Your task to perform on an android device: check android version Image 0: 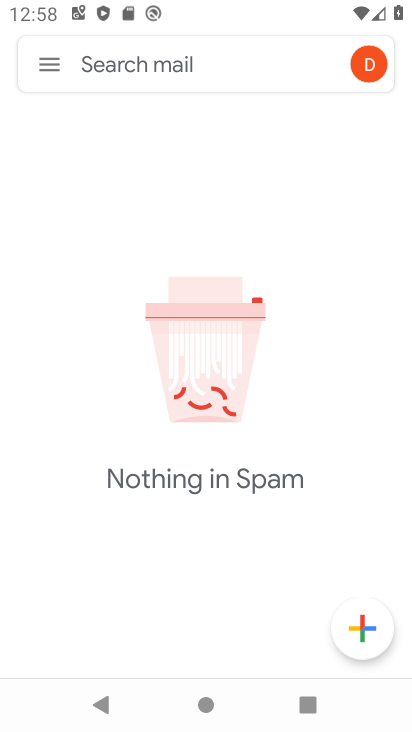
Step 0: press home button
Your task to perform on an android device: check android version Image 1: 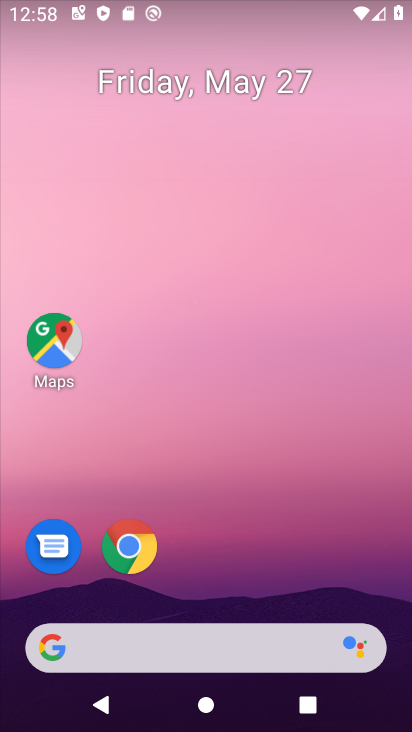
Step 1: drag from (317, 623) to (393, 39)
Your task to perform on an android device: check android version Image 2: 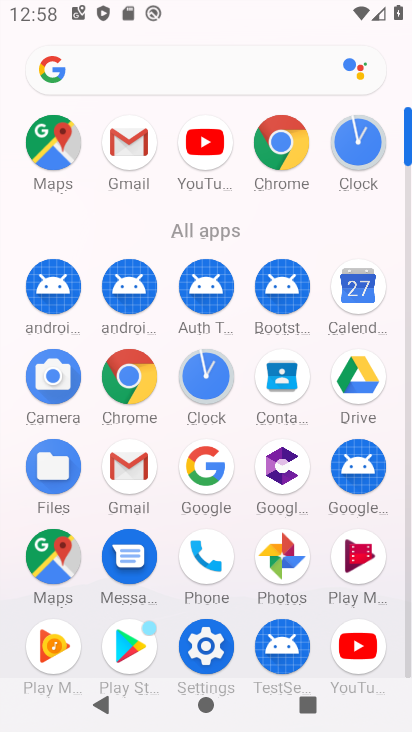
Step 2: click (199, 633)
Your task to perform on an android device: check android version Image 3: 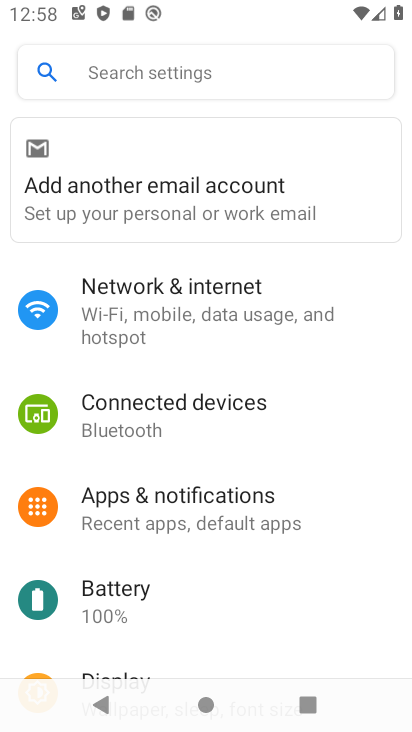
Step 3: click (192, 77)
Your task to perform on an android device: check android version Image 4: 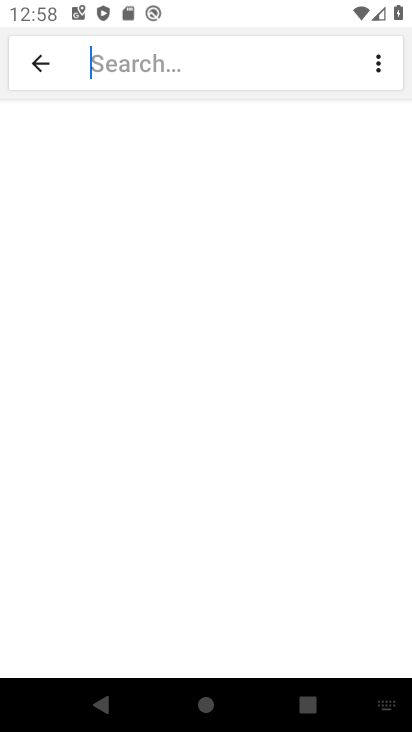
Step 4: click (382, 700)
Your task to perform on an android device: check android version Image 5: 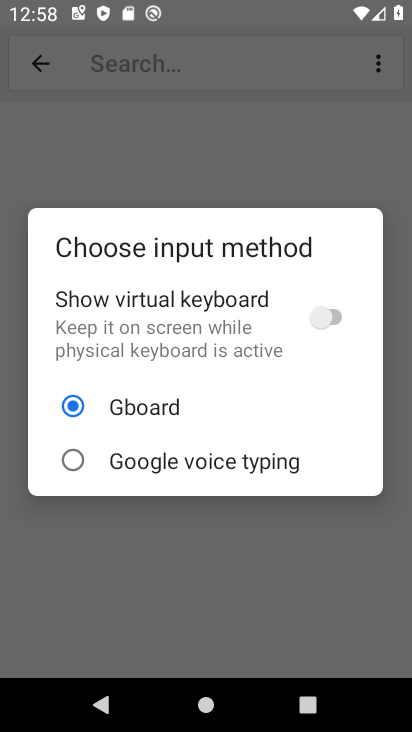
Step 5: click (336, 298)
Your task to perform on an android device: check android version Image 6: 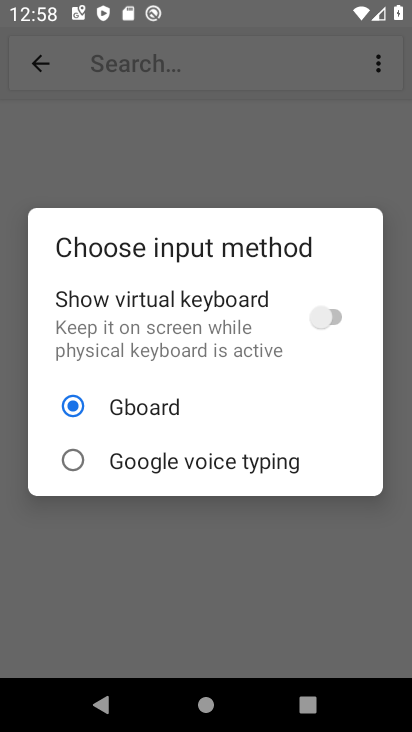
Step 6: click (339, 319)
Your task to perform on an android device: check android version Image 7: 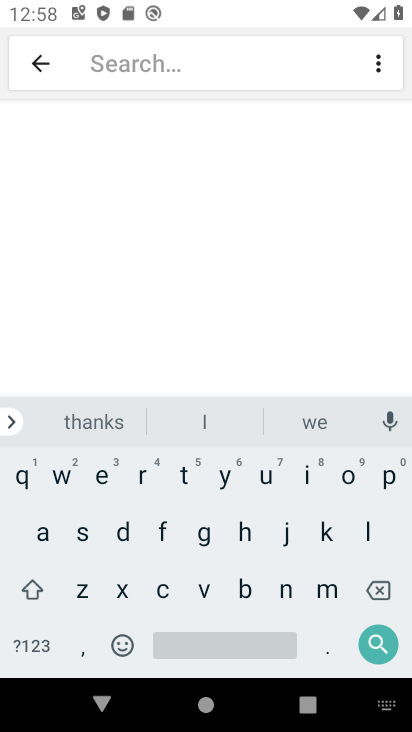
Step 7: click (41, 530)
Your task to perform on an android device: check android version Image 8: 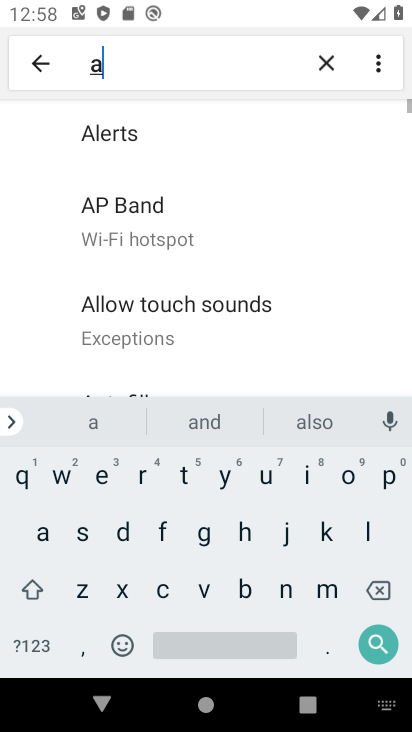
Step 8: click (282, 591)
Your task to perform on an android device: check android version Image 9: 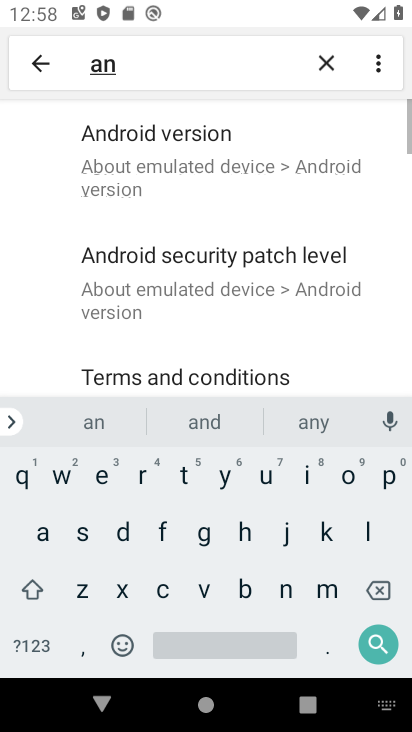
Step 9: click (209, 174)
Your task to perform on an android device: check android version Image 10: 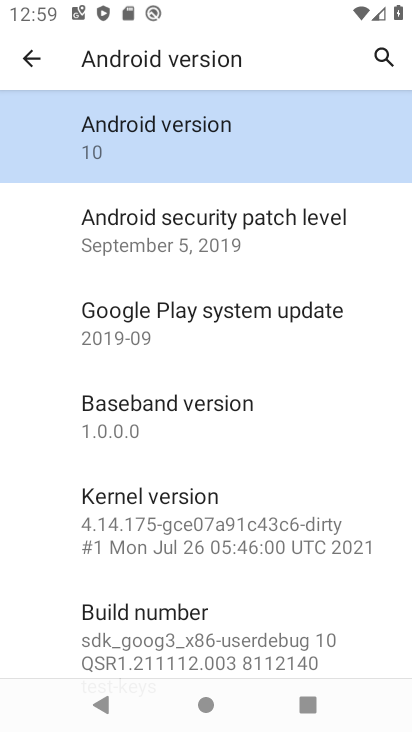
Step 10: task complete